Your task to perform on an android device: Open the stopwatch Image 0: 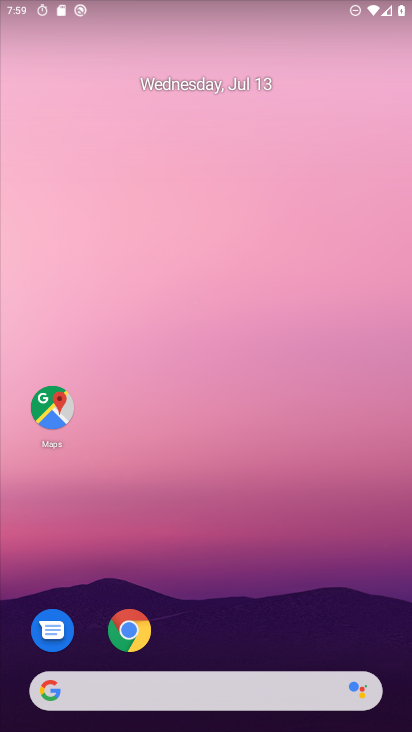
Step 0: drag from (375, 651) to (227, 18)
Your task to perform on an android device: Open the stopwatch Image 1: 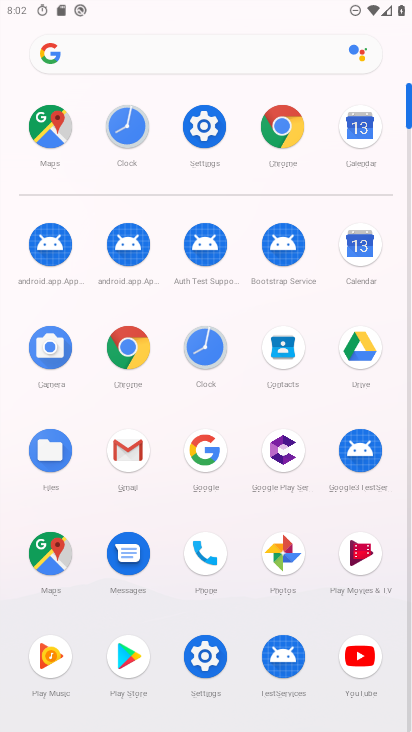
Step 1: click (202, 347)
Your task to perform on an android device: Open the stopwatch Image 2: 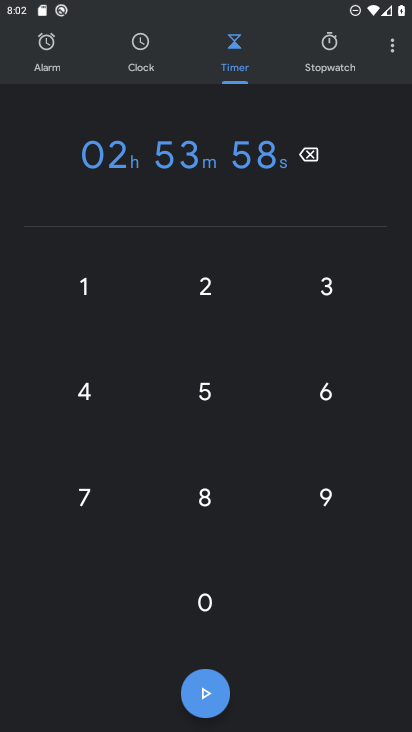
Step 2: click (328, 50)
Your task to perform on an android device: Open the stopwatch Image 3: 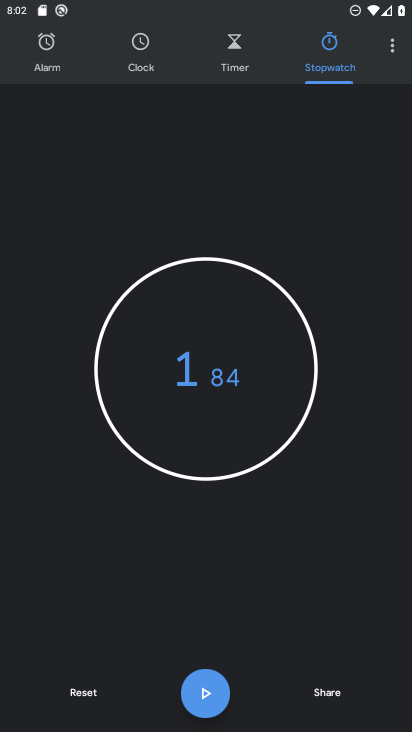
Step 3: task complete